Your task to perform on an android device: toggle sleep mode Image 0: 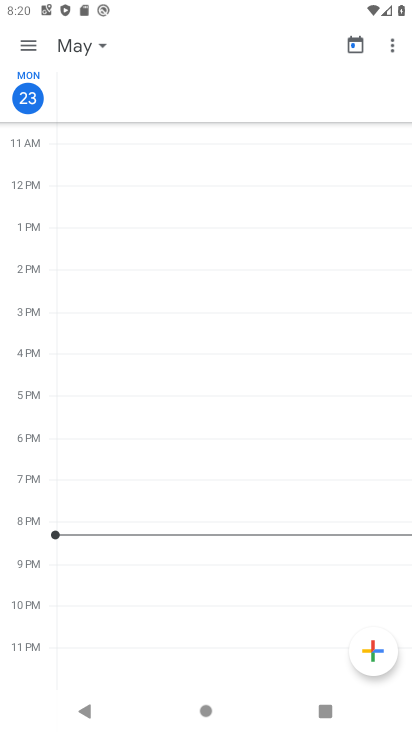
Step 0: press home button
Your task to perform on an android device: toggle sleep mode Image 1: 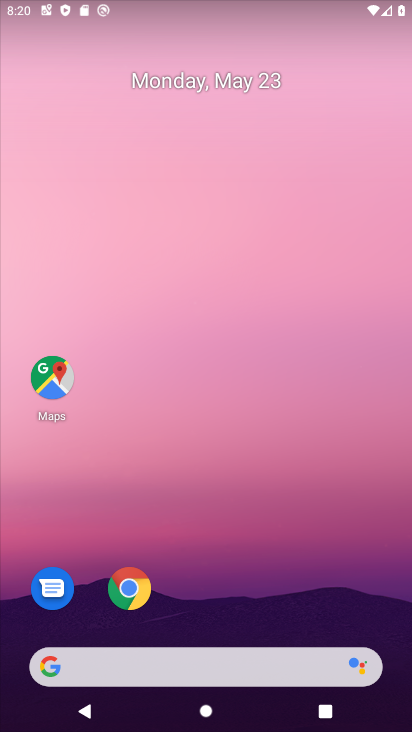
Step 1: drag from (402, 704) to (389, 109)
Your task to perform on an android device: toggle sleep mode Image 2: 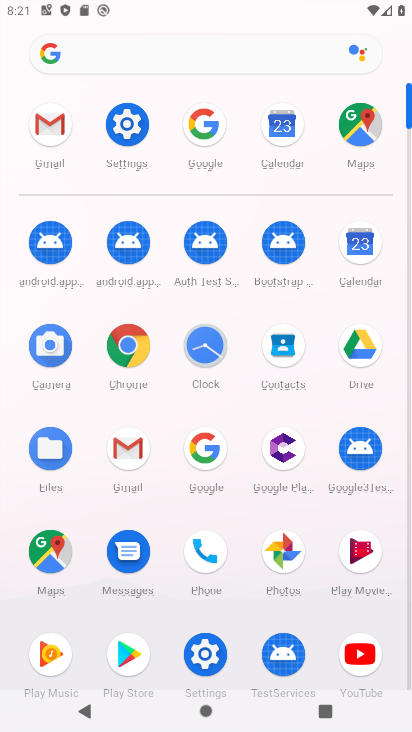
Step 2: click (206, 659)
Your task to perform on an android device: toggle sleep mode Image 3: 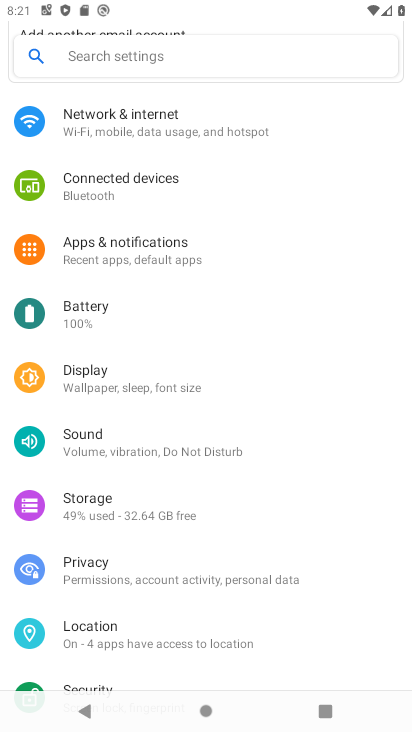
Step 3: click (81, 375)
Your task to perform on an android device: toggle sleep mode Image 4: 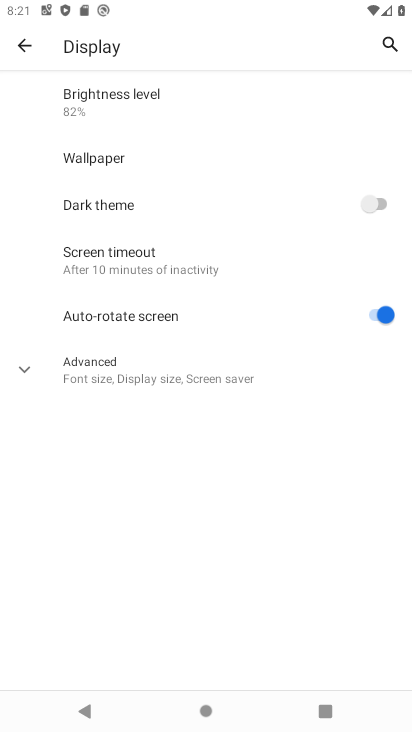
Step 4: click (127, 263)
Your task to perform on an android device: toggle sleep mode Image 5: 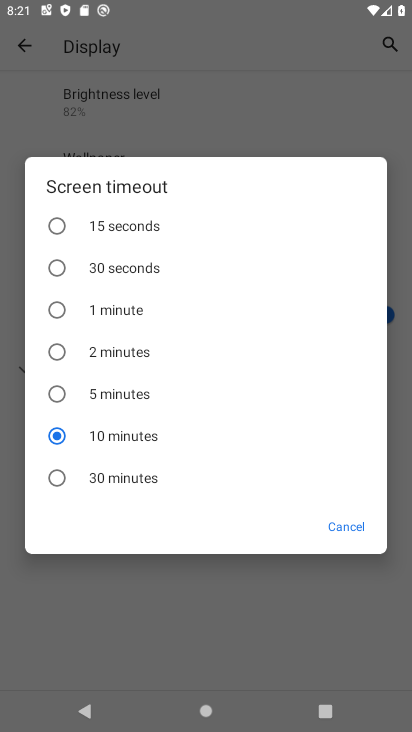
Step 5: click (54, 481)
Your task to perform on an android device: toggle sleep mode Image 6: 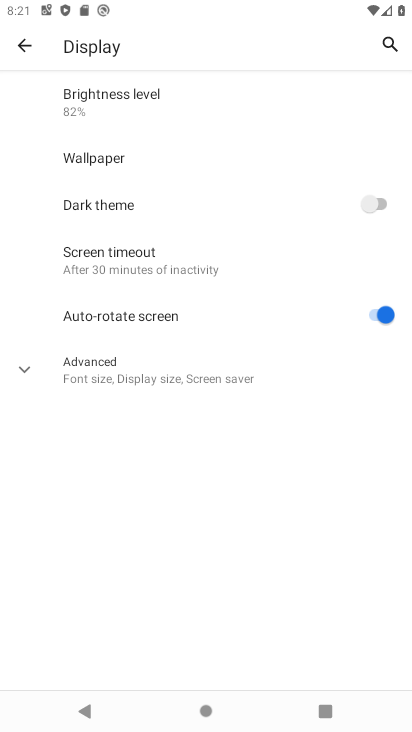
Step 6: task complete